Your task to perform on an android device: Open the stopwatch Image 0: 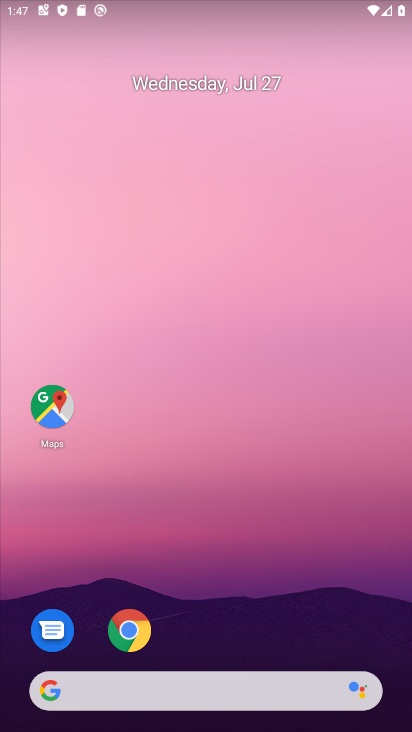
Step 0: drag from (387, 634) to (359, 130)
Your task to perform on an android device: Open the stopwatch Image 1: 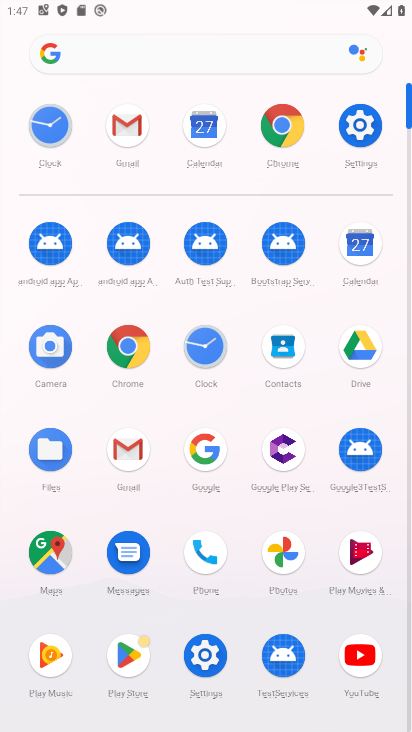
Step 1: click (207, 345)
Your task to perform on an android device: Open the stopwatch Image 2: 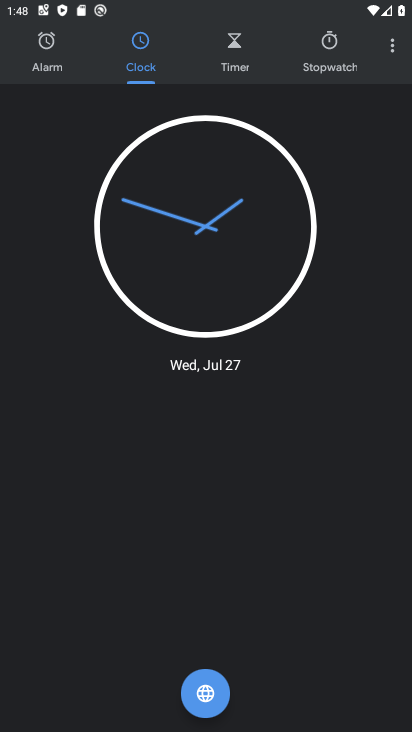
Step 2: click (335, 49)
Your task to perform on an android device: Open the stopwatch Image 3: 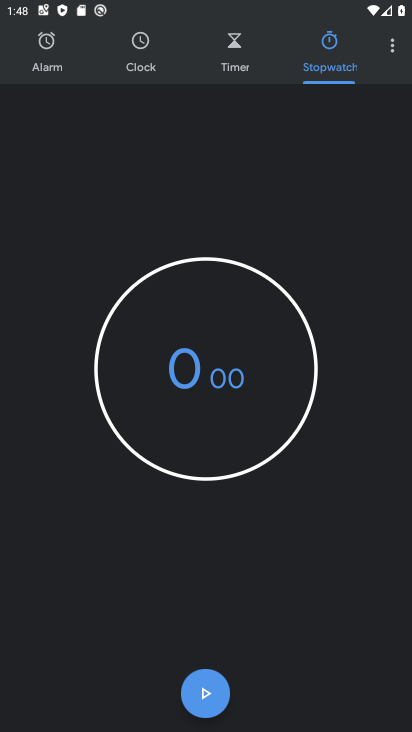
Step 3: task complete